Your task to perform on an android device: toggle location history Image 0: 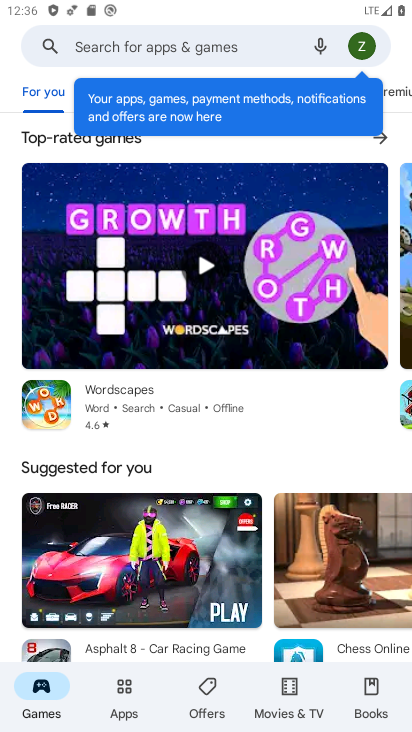
Step 0: press home button
Your task to perform on an android device: toggle location history Image 1: 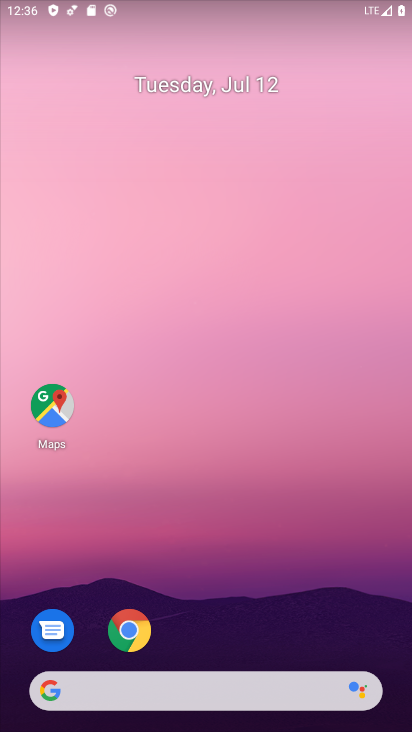
Step 1: click (225, 28)
Your task to perform on an android device: toggle location history Image 2: 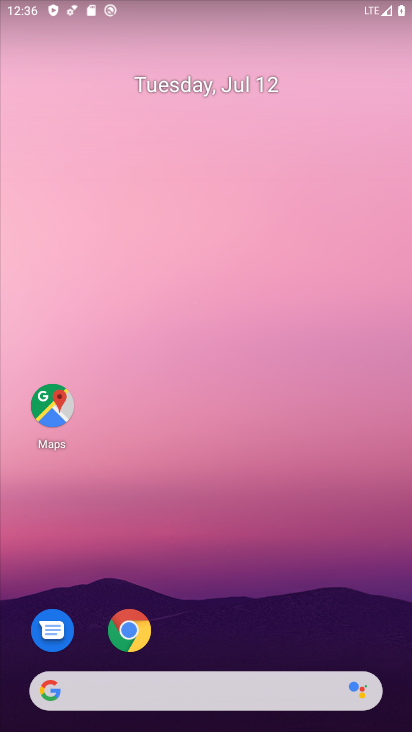
Step 2: drag from (280, 556) to (302, 131)
Your task to perform on an android device: toggle location history Image 3: 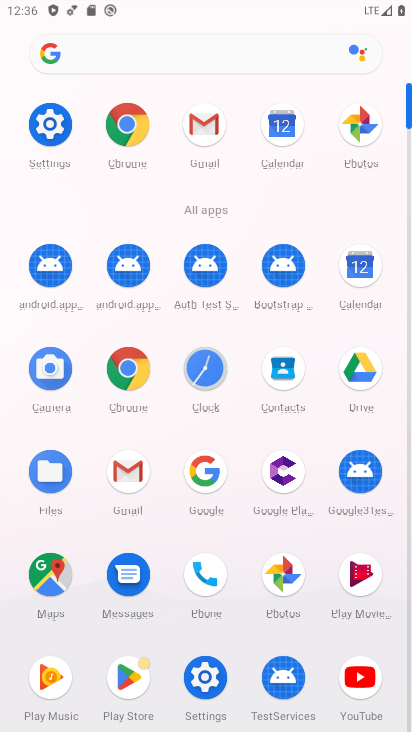
Step 3: click (38, 140)
Your task to perform on an android device: toggle location history Image 4: 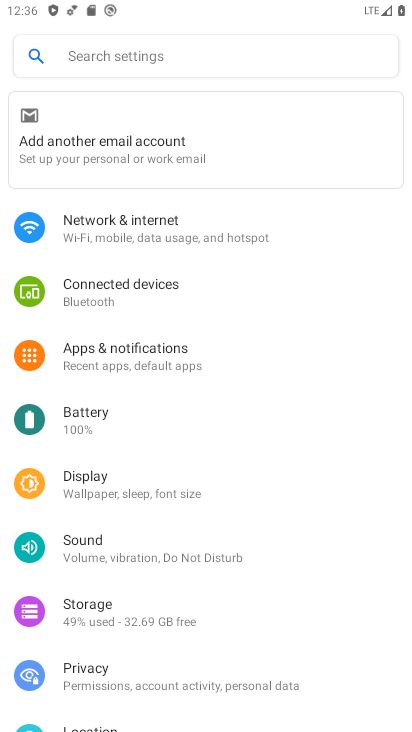
Step 4: click (119, 722)
Your task to perform on an android device: toggle location history Image 5: 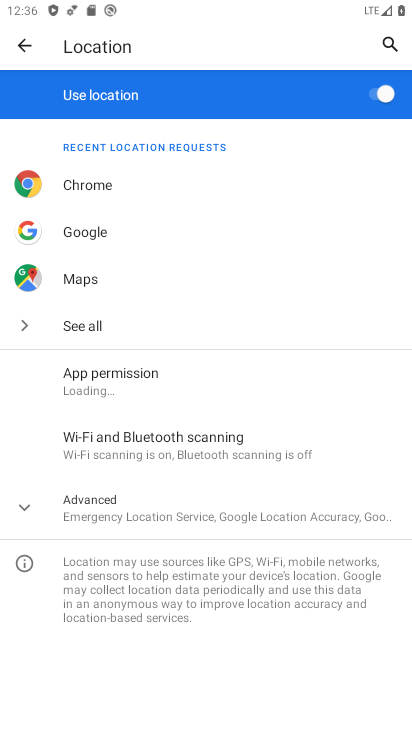
Step 5: click (209, 501)
Your task to perform on an android device: toggle location history Image 6: 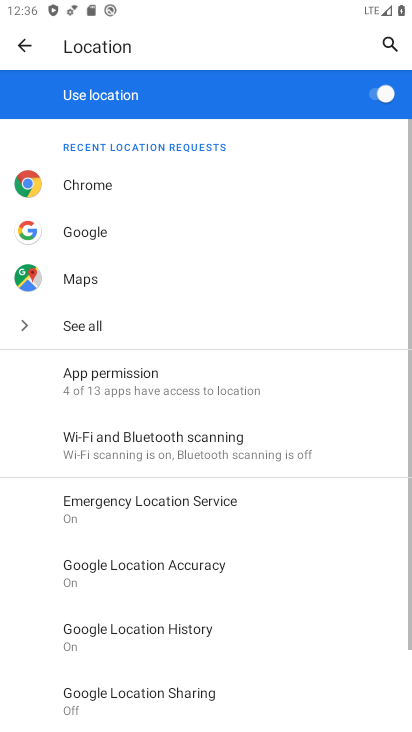
Step 6: click (152, 620)
Your task to perform on an android device: toggle location history Image 7: 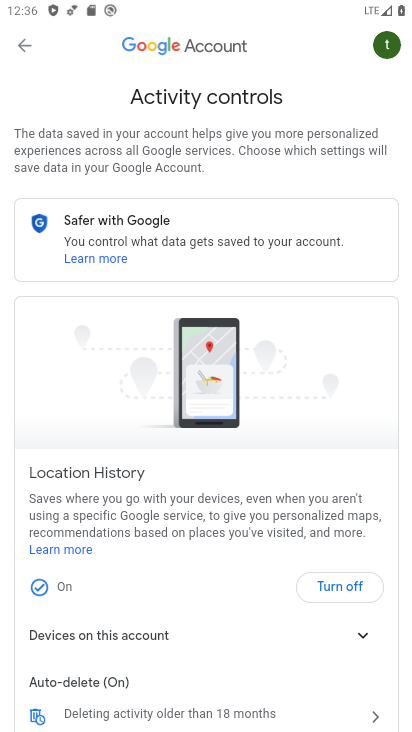
Step 7: click (318, 592)
Your task to perform on an android device: toggle location history Image 8: 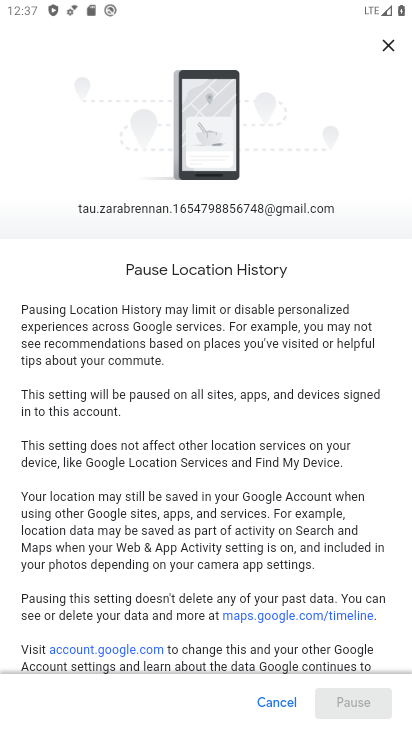
Step 8: drag from (318, 592) to (266, 271)
Your task to perform on an android device: toggle location history Image 9: 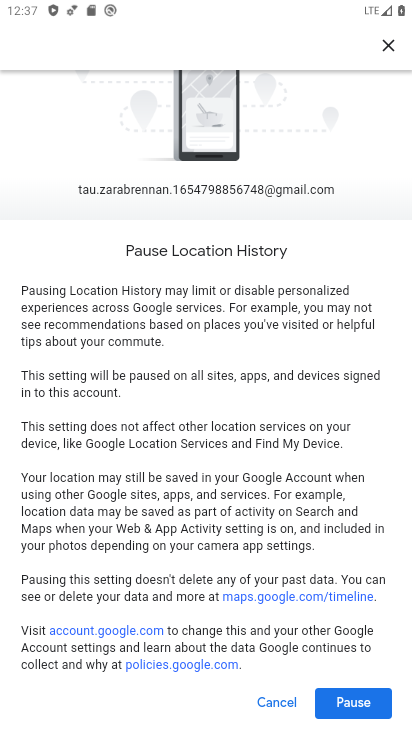
Step 9: click (351, 710)
Your task to perform on an android device: toggle location history Image 10: 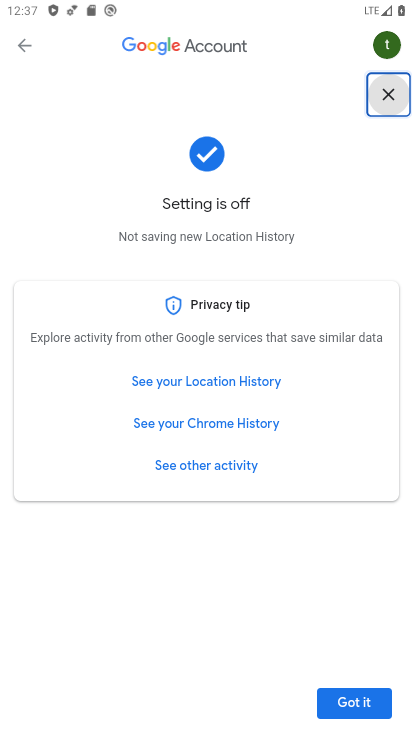
Step 10: task complete